Your task to perform on an android device: Show me recent news Image 0: 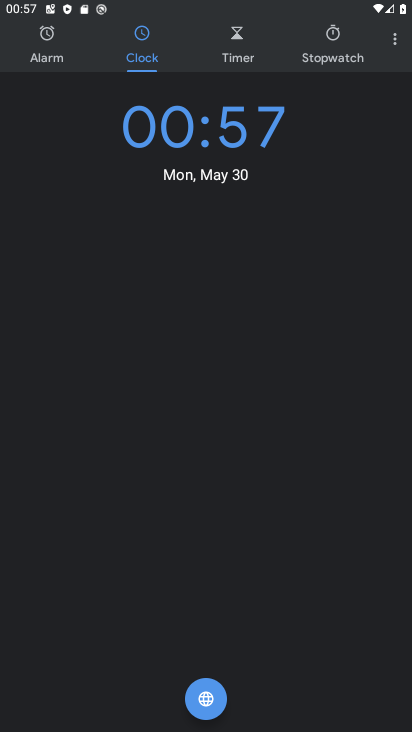
Step 0: press home button
Your task to perform on an android device: Show me recent news Image 1: 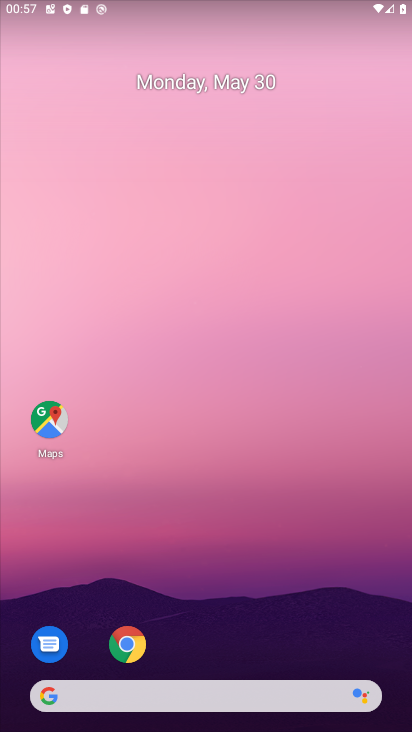
Step 1: drag from (300, 539) to (299, 201)
Your task to perform on an android device: Show me recent news Image 2: 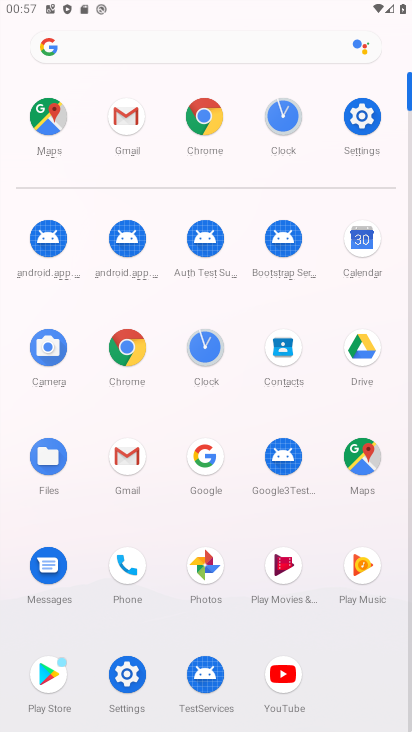
Step 2: click (115, 358)
Your task to perform on an android device: Show me recent news Image 3: 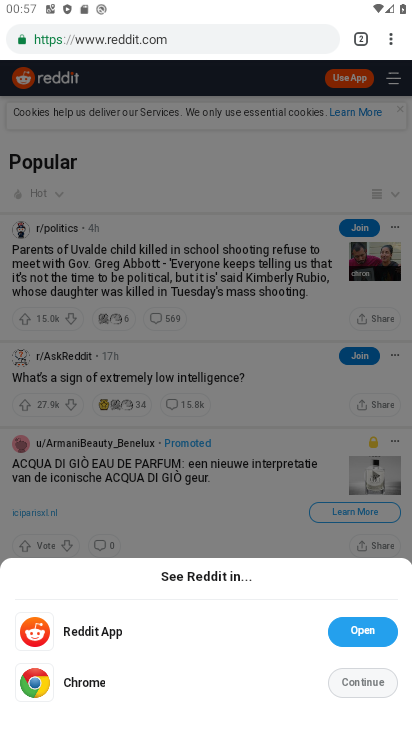
Step 3: click (176, 38)
Your task to perform on an android device: Show me recent news Image 4: 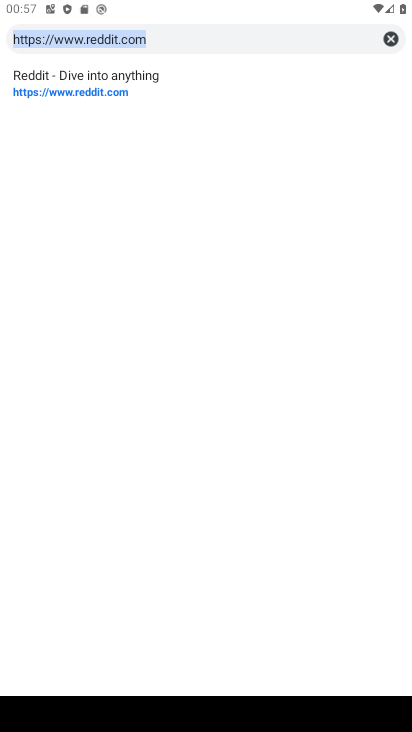
Step 4: click (395, 34)
Your task to perform on an android device: Show me recent news Image 5: 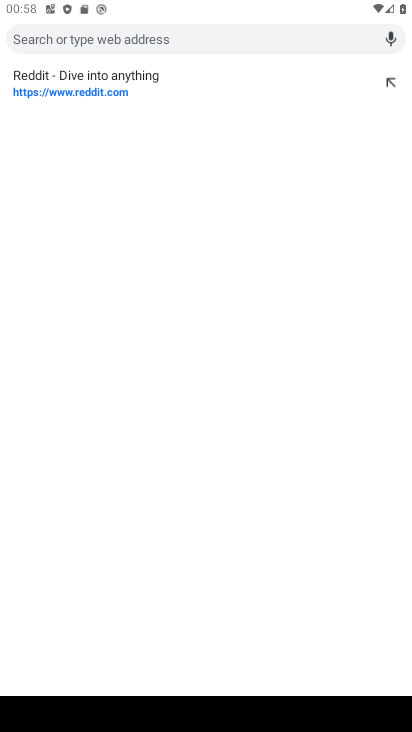
Step 5: type "show me recent news "
Your task to perform on an android device: Show me recent news Image 6: 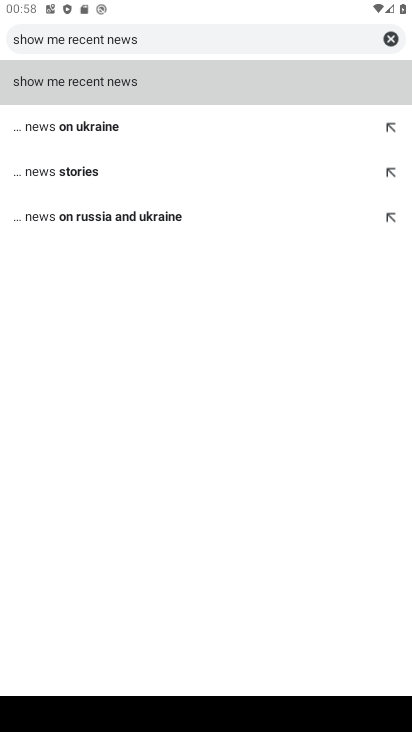
Step 6: click (157, 85)
Your task to perform on an android device: Show me recent news Image 7: 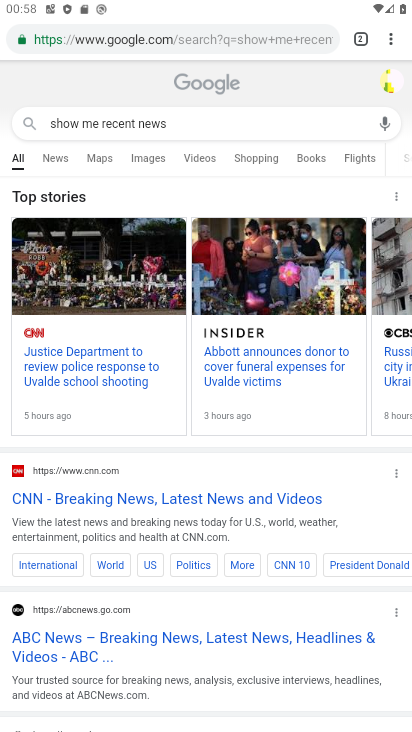
Step 7: task complete